Your task to perform on an android device: turn on the 24-hour format for clock Image 0: 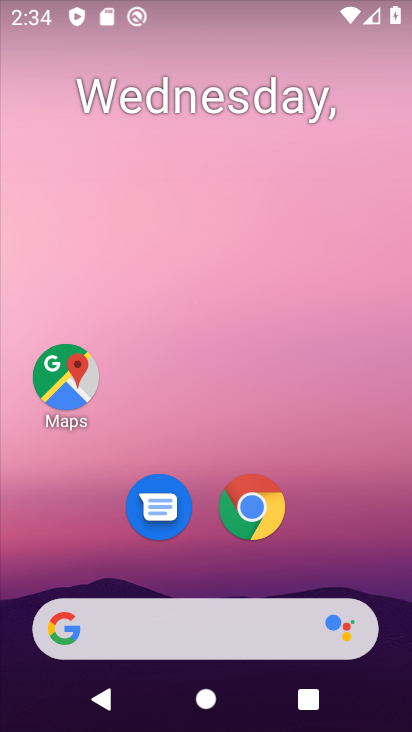
Step 0: drag from (278, 526) to (391, 213)
Your task to perform on an android device: turn on the 24-hour format for clock Image 1: 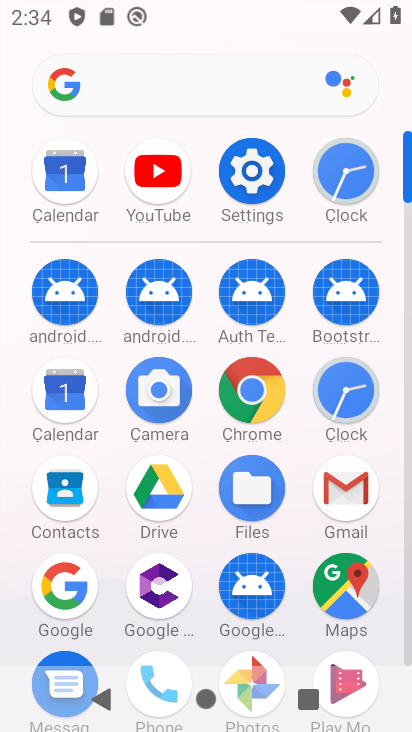
Step 1: click (358, 208)
Your task to perform on an android device: turn on the 24-hour format for clock Image 2: 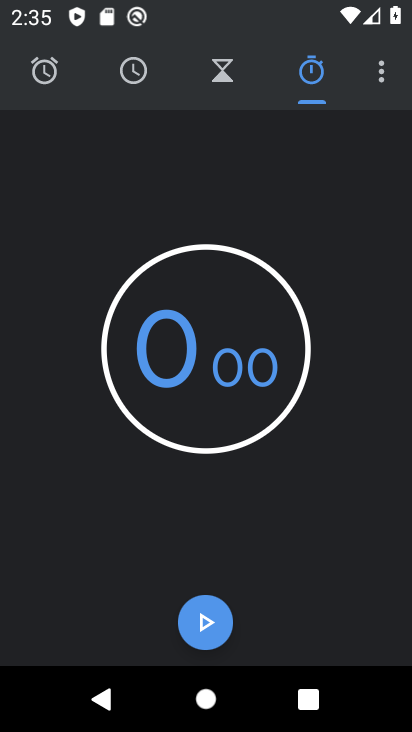
Step 2: click (400, 86)
Your task to perform on an android device: turn on the 24-hour format for clock Image 3: 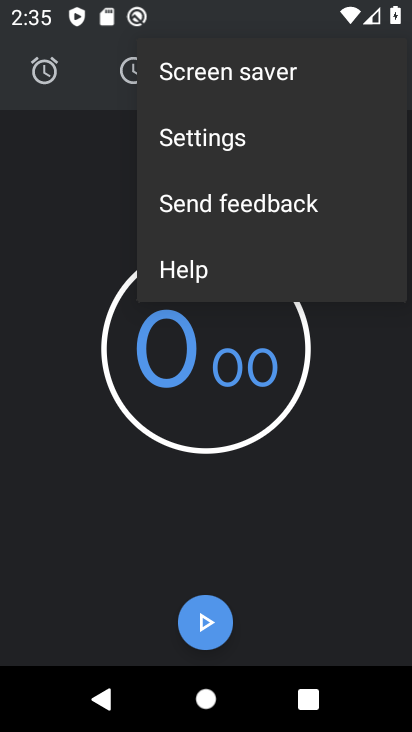
Step 3: click (240, 156)
Your task to perform on an android device: turn on the 24-hour format for clock Image 4: 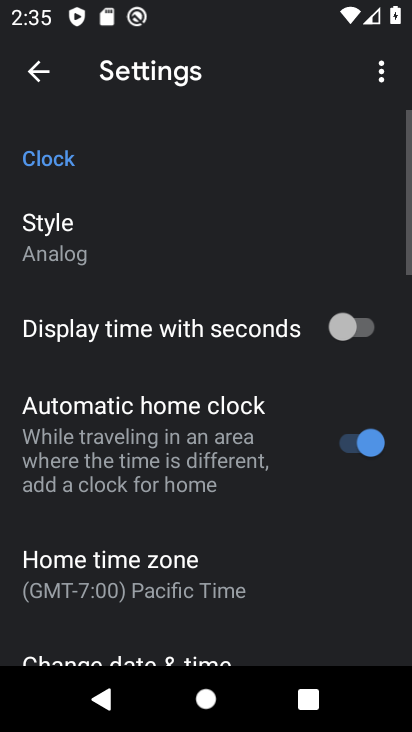
Step 4: drag from (59, 524) to (190, 252)
Your task to perform on an android device: turn on the 24-hour format for clock Image 5: 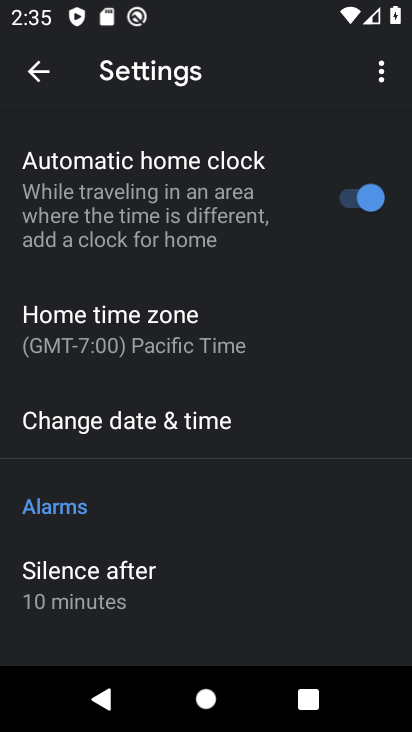
Step 5: click (104, 401)
Your task to perform on an android device: turn on the 24-hour format for clock Image 6: 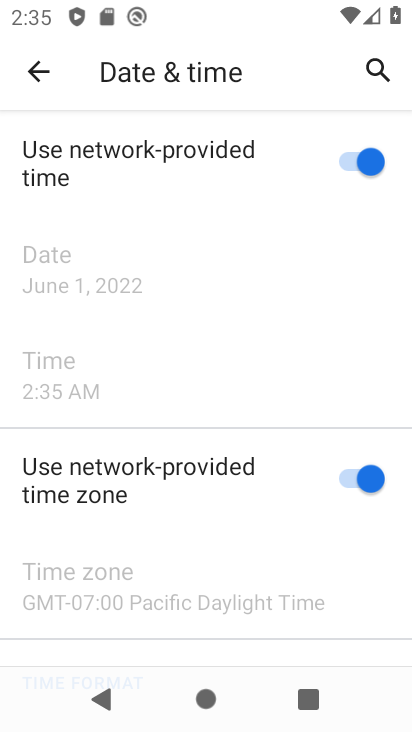
Step 6: click (100, 399)
Your task to perform on an android device: turn on the 24-hour format for clock Image 7: 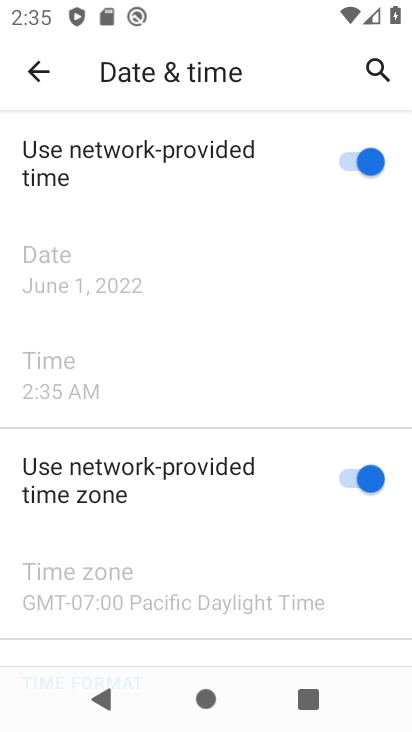
Step 7: drag from (175, 479) to (262, 267)
Your task to perform on an android device: turn on the 24-hour format for clock Image 8: 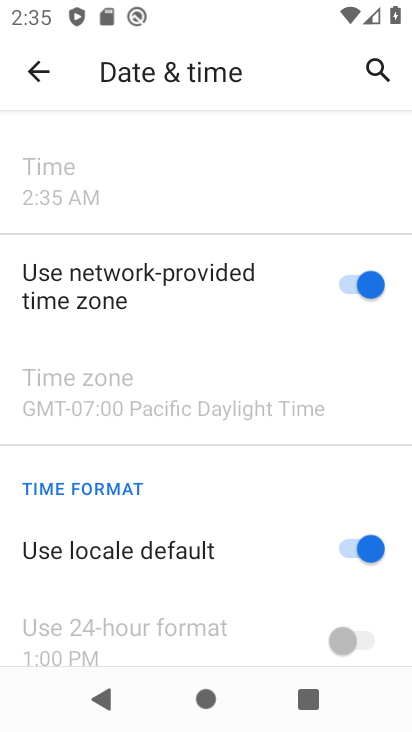
Step 8: click (341, 544)
Your task to perform on an android device: turn on the 24-hour format for clock Image 9: 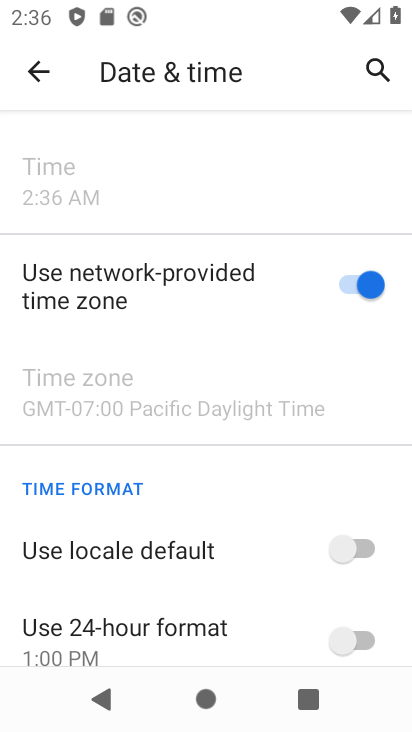
Step 9: click (370, 629)
Your task to perform on an android device: turn on the 24-hour format for clock Image 10: 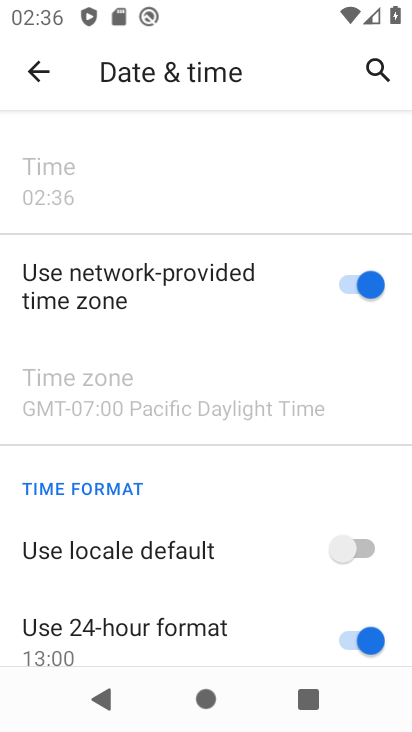
Step 10: task complete